Your task to perform on an android device: Open Google Chrome Image 0: 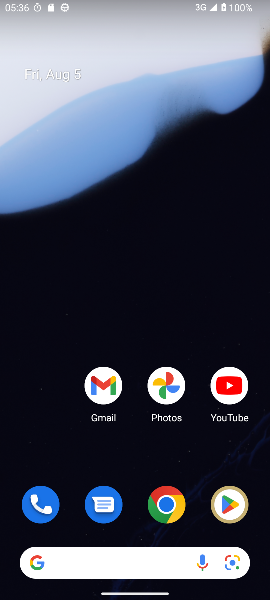
Step 0: click (168, 501)
Your task to perform on an android device: Open Google Chrome Image 1: 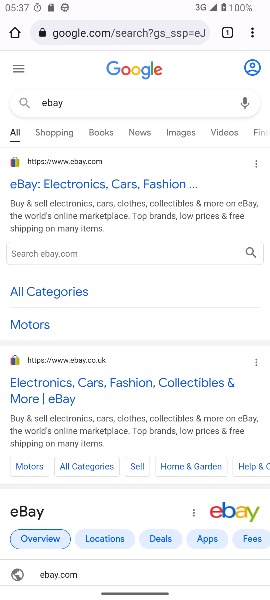
Step 1: task complete